Your task to perform on an android device: See recent photos Image 0: 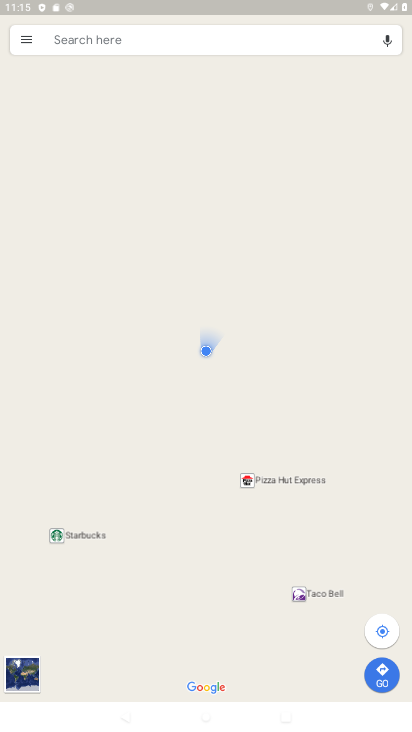
Step 0: press home button
Your task to perform on an android device: See recent photos Image 1: 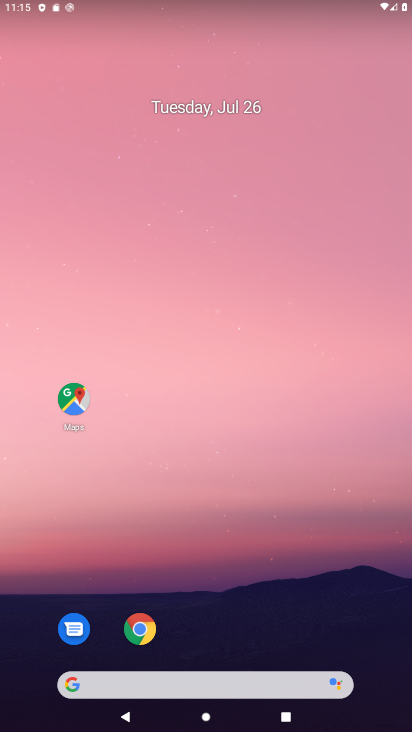
Step 1: drag from (228, 670) to (216, 260)
Your task to perform on an android device: See recent photos Image 2: 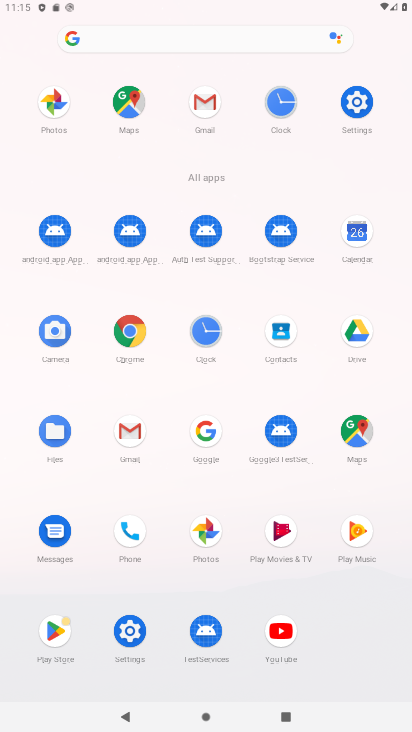
Step 2: click (208, 532)
Your task to perform on an android device: See recent photos Image 3: 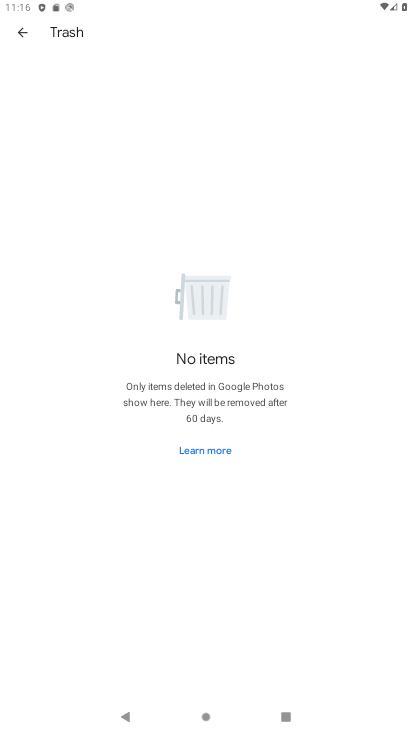
Step 3: click (20, 31)
Your task to perform on an android device: See recent photos Image 4: 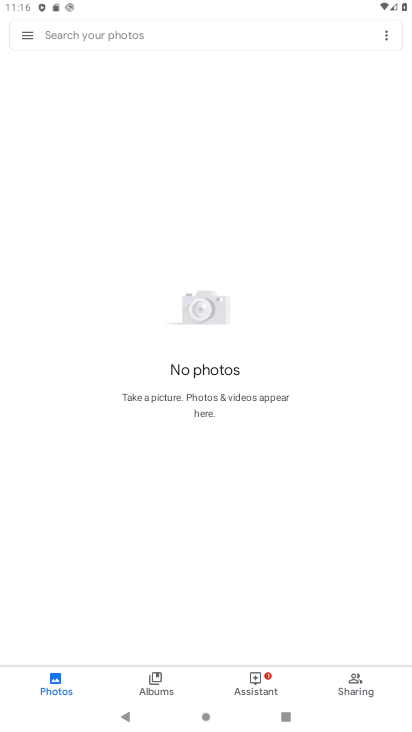
Step 4: task complete